Your task to perform on an android device: Go to ESPN.com Image 0: 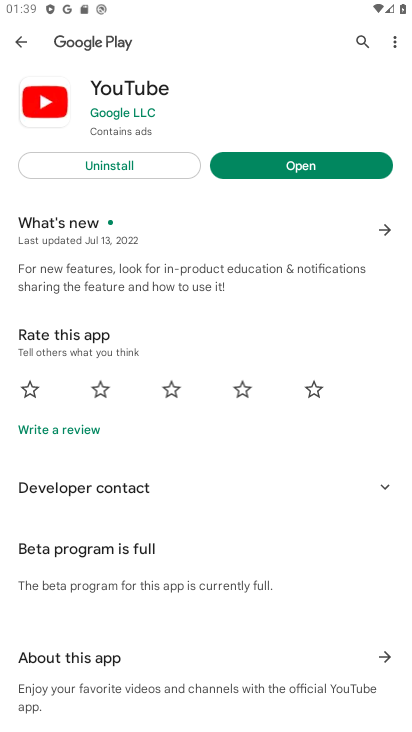
Step 0: press home button
Your task to perform on an android device: Go to ESPN.com Image 1: 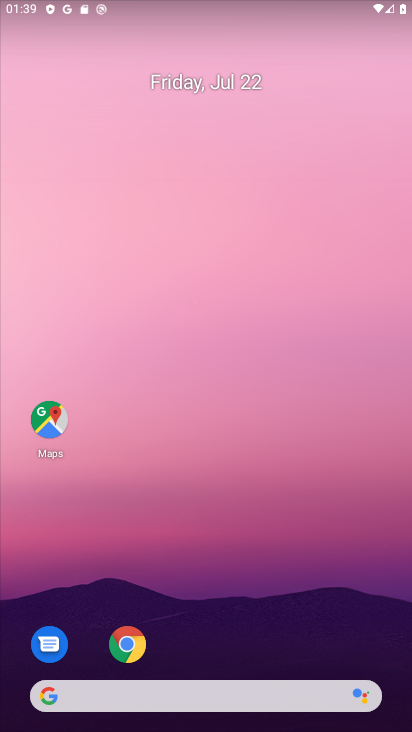
Step 1: click (153, 688)
Your task to perform on an android device: Go to ESPN.com Image 2: 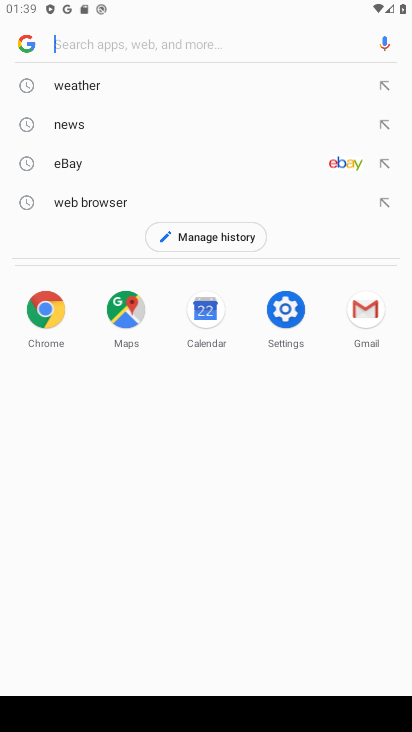
Step 2: type "espn.com"
Your task to perform on an android device: Go to ESPN.com Image 3: 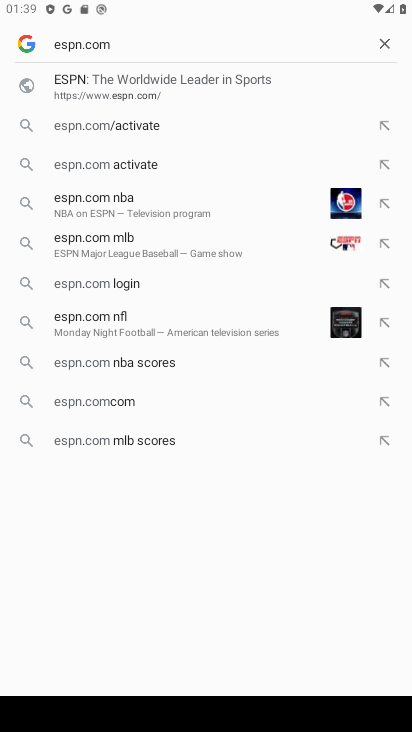
Step 3: click (180, 80)
Your task to perform on an android device: Go to ESPN.com Image 4: 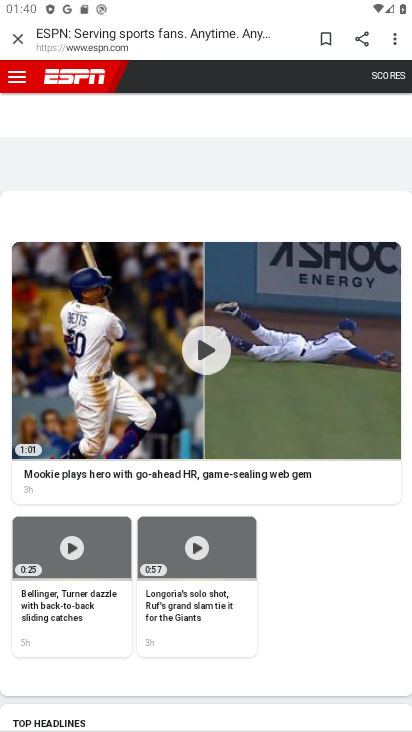
Step 4: task complete